Your task to perform on an android device: Go to internet settings Image 0: 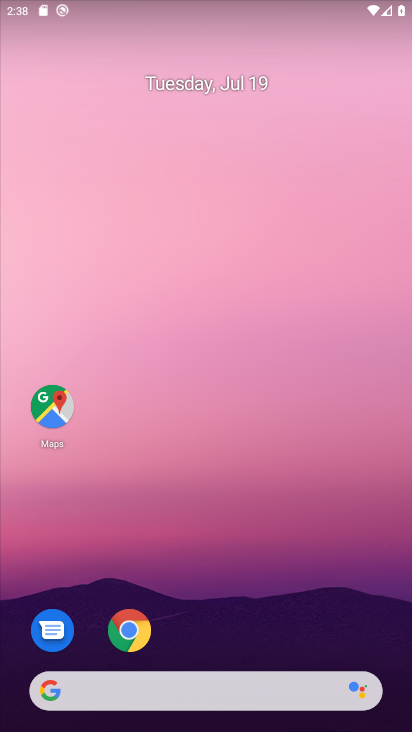
Step 0: drag from (256, 515) to (185, 7)
Your task to perform on an android device: Go to internet settings Image 1: 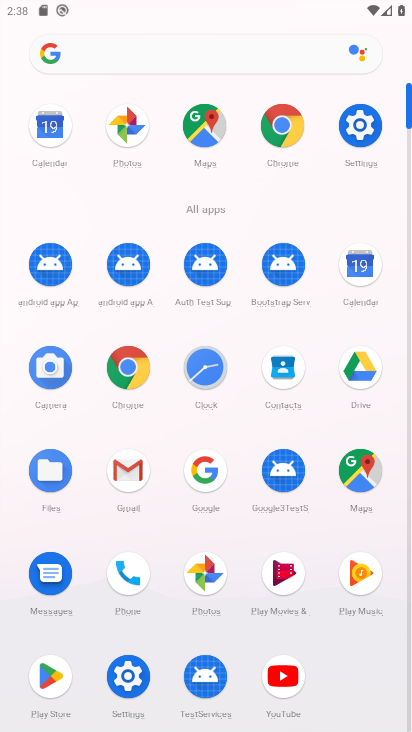
Step 1: click (360, 122)
Your task to perform on an android device: Go to internet settings Image 2: 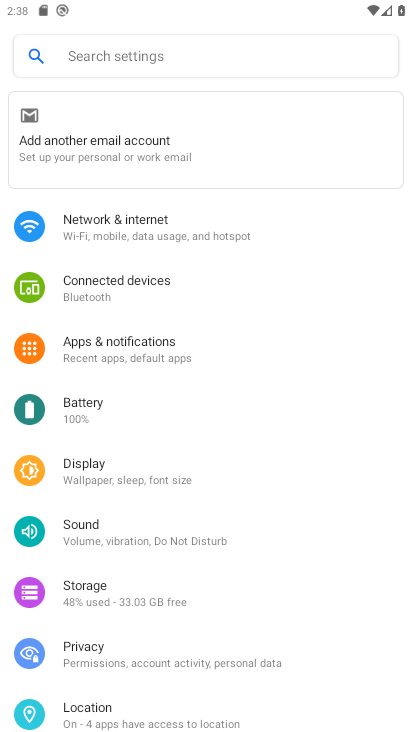
Step 2: click (121, 225)
Your task to perform on an android device: Go to internet settings Image 3: 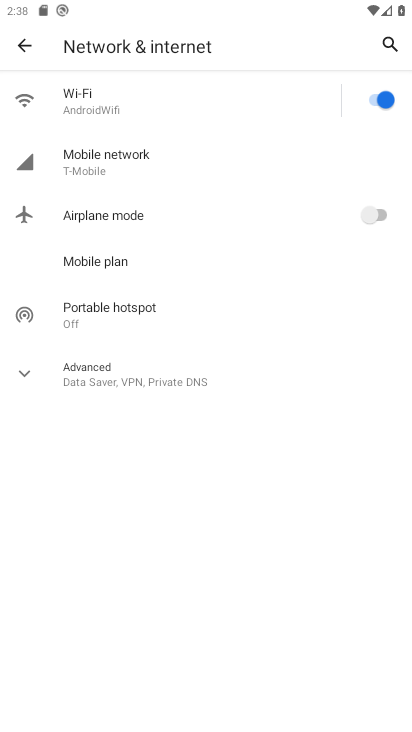
Step 3: task complete